Your task to perform on an android device: see tabs open on other devices in the chrome app Image 0: 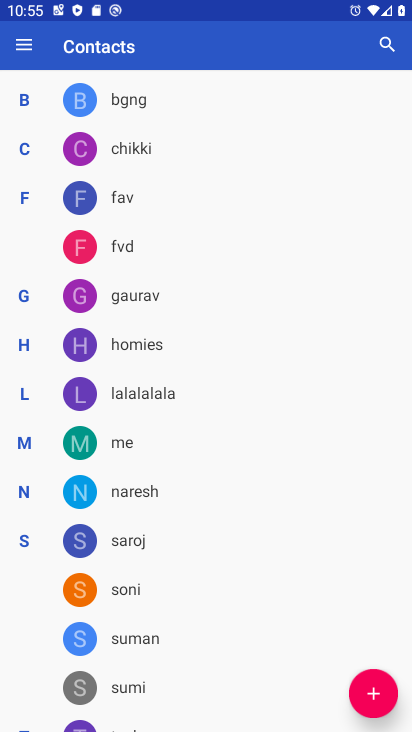
Step 0: press home button
Your task to perform on an android device: see tabs open on other devices in the chrome app Image 1: 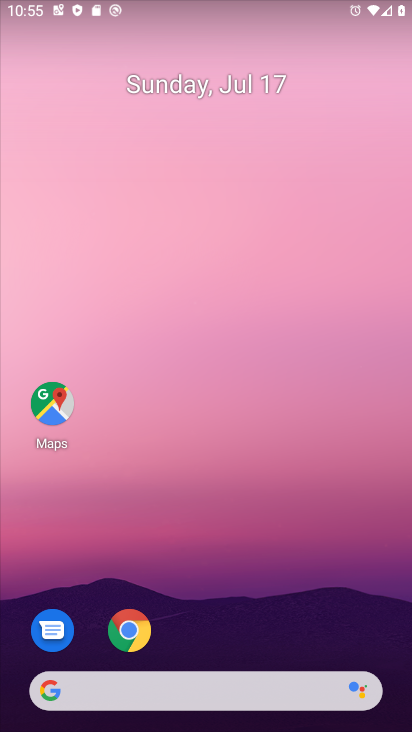
Step 1: drag from (329, 593) to (340, 97)
Your task to perform on an android device: see tabs open on other devices in the chrome app Image 2: 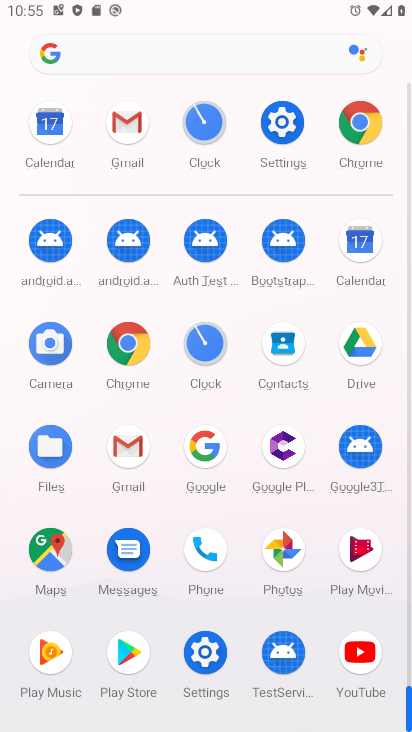
Step 2: click (130, 341)
Your task to perform on an android device: see tabs open on other devices in the chrome app Image 3: 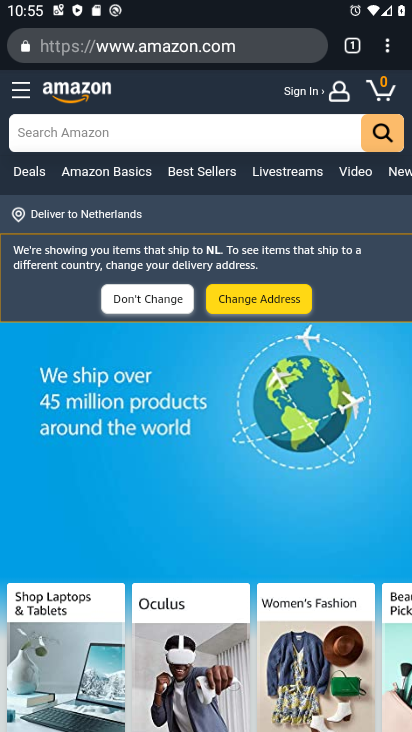
Step 3: click (383, 53)
Your task to perform on an android device: see tabs open on other devices in the chrome app Image 4: 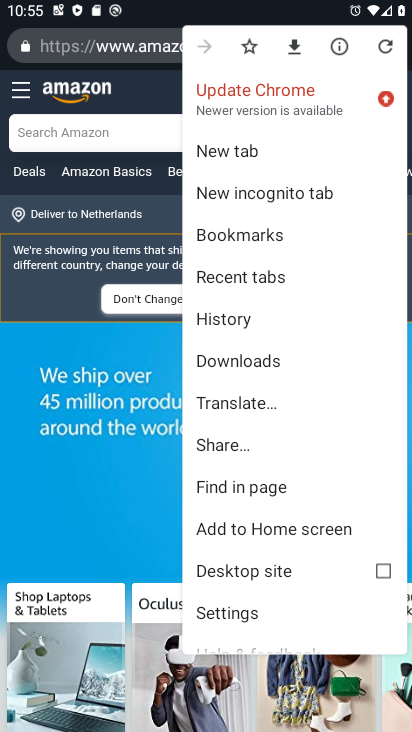
Step 4: click (277, 283)
Your task to perform on an android device: see tabs open on other devices in the chrome app Image 5: 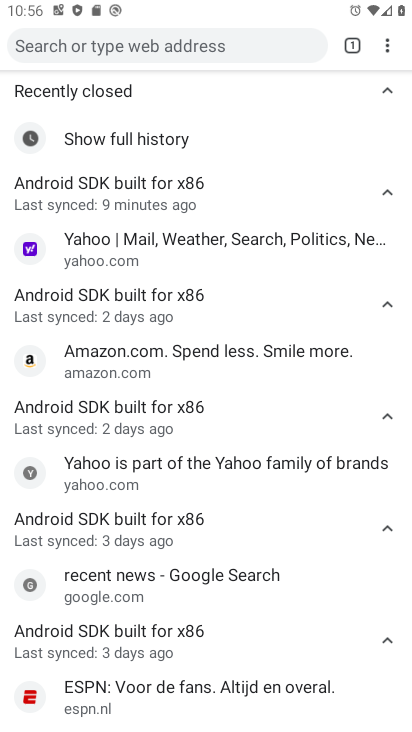
Step 5: click (354, 48)
Your task to perform on an android device: see tabs open on other devices in the chrome app Image 6: 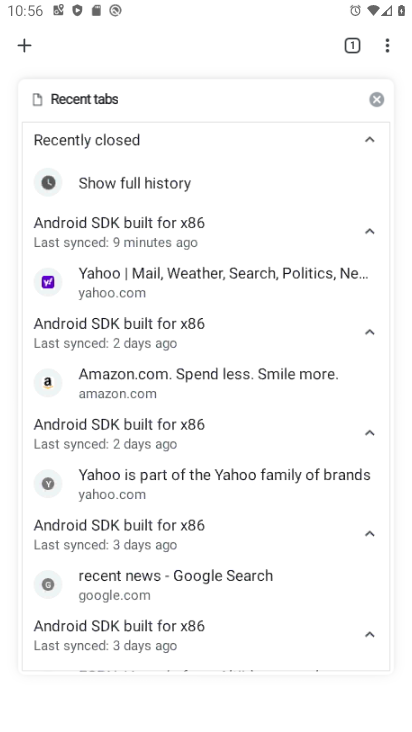
Step 6: task complete